Your task to perform on an android device: open app "Microsoft Outlook" Image 0: 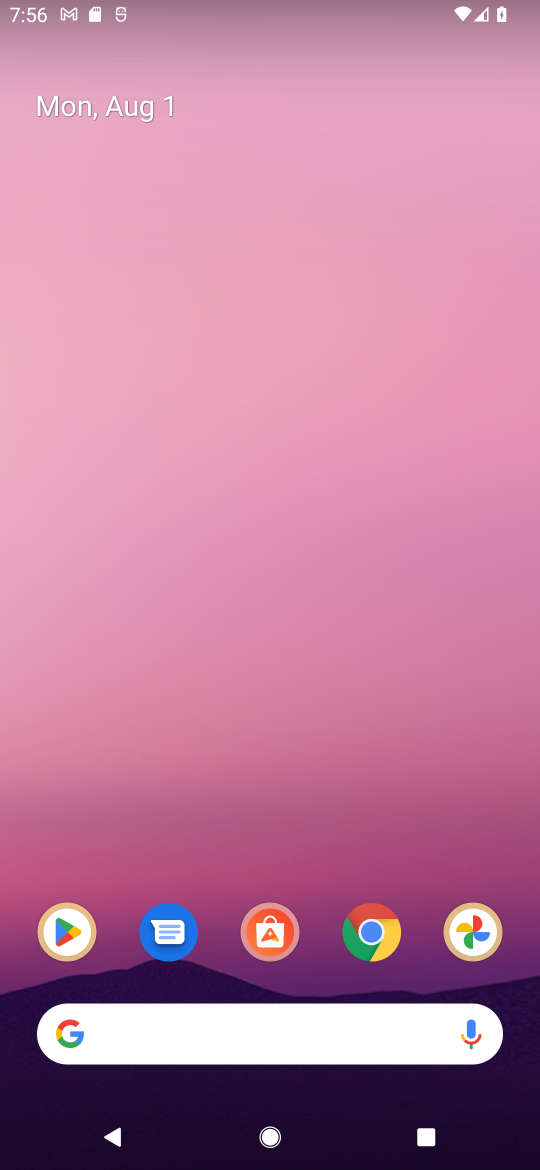
Step 0: click (79, 948)
Your task to perform on an android device: open app "Microsoft Outlook" Image 1: 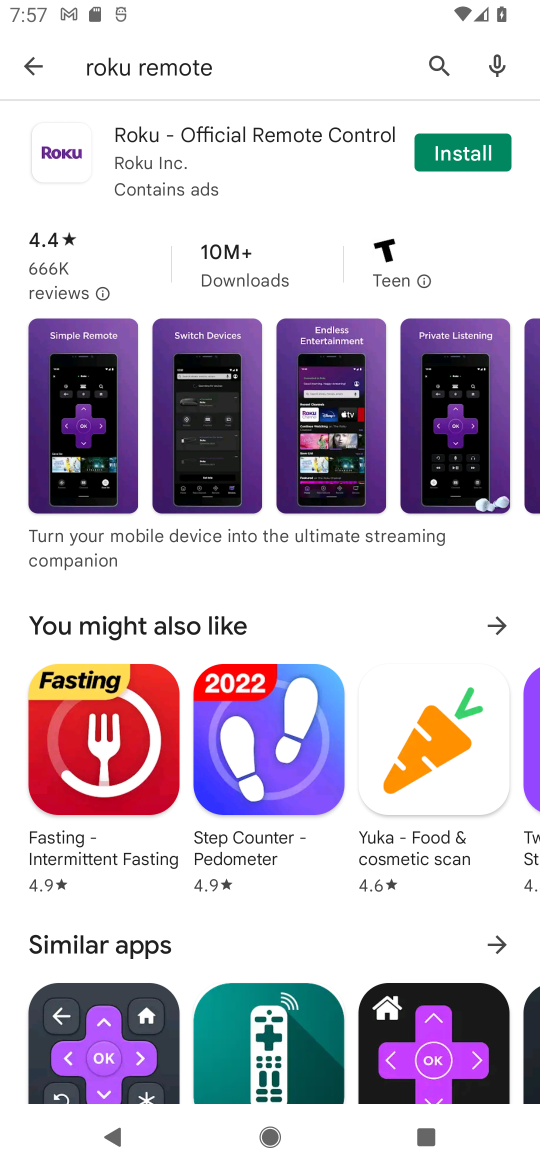
Step 1: click (276, 77)
Your task to perform on an android device: open app "Microsoft Outlook" Image 2: 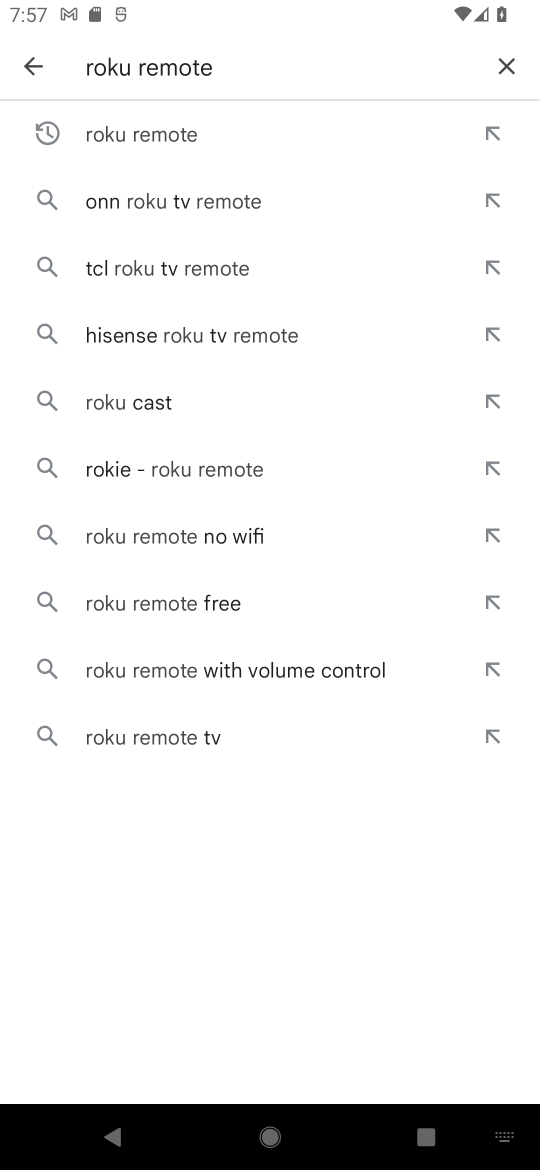
Step 2: click (507, 68)
Your task to perform on an android device: open app "Microsoft Outlook" Image 3: 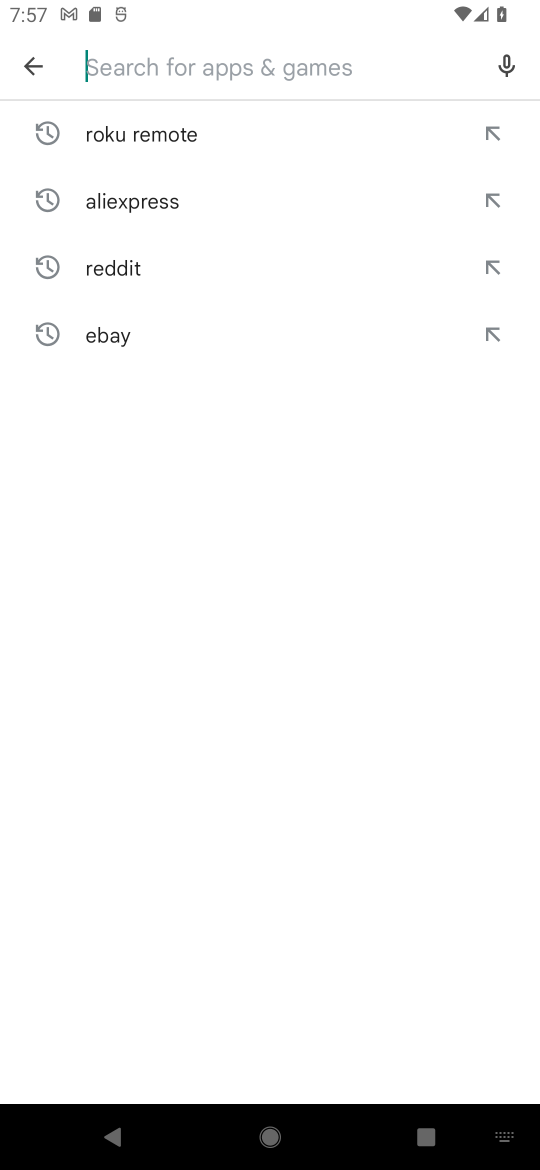
Step 3: type "microsoft outlook"
Your task to perform on an android device: open app "Microsoft Outlook" Image 4: 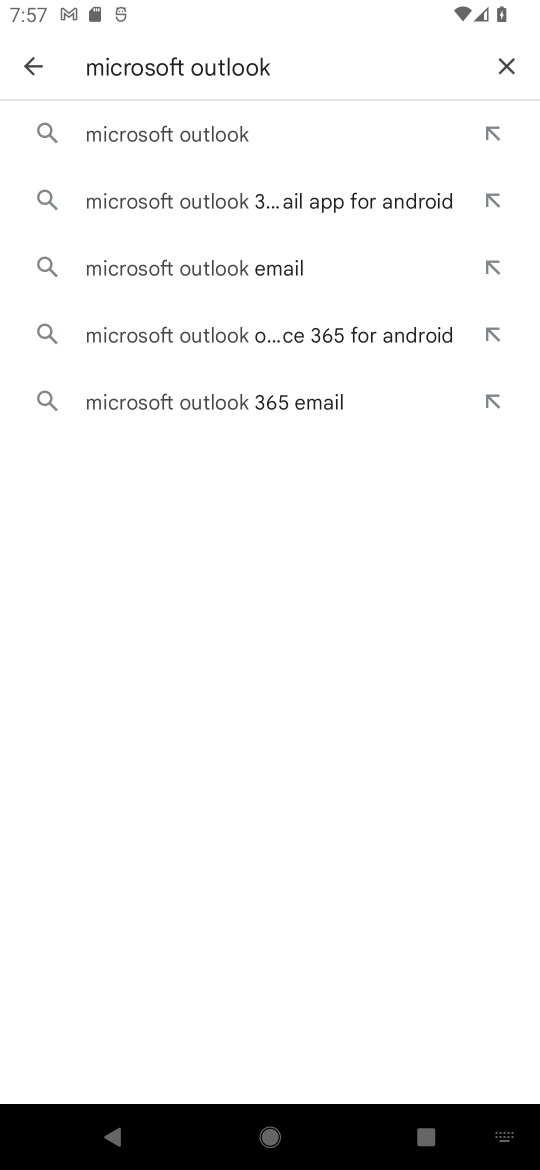
Step 4: click (226, 127)
Your task to perform on an android device: open app "Microsoft Outlook" Image 5: 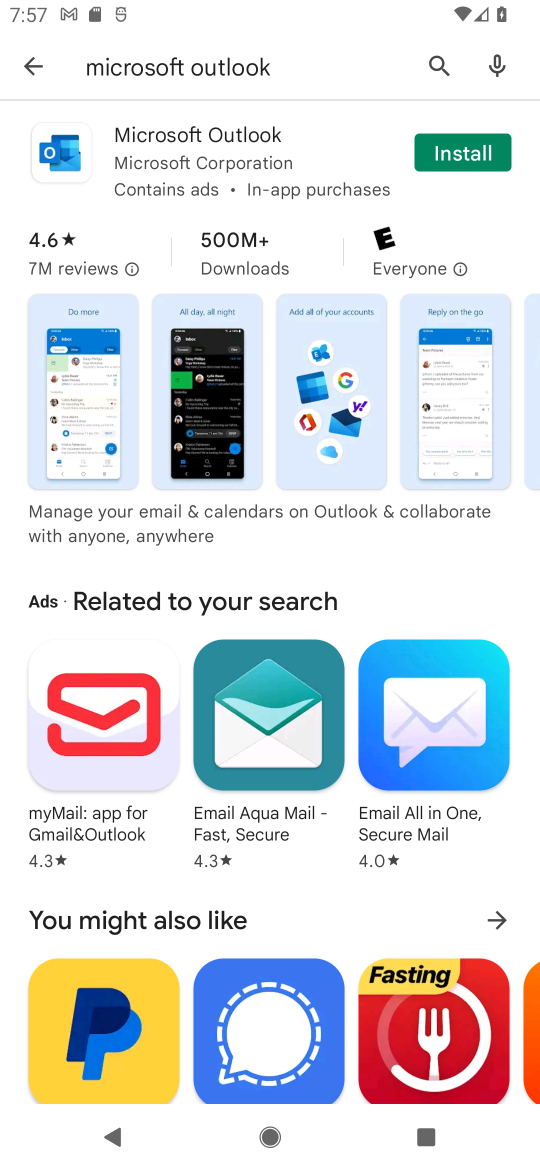
Step 5: task complete